Your task to perform on an android device: Open Google Maps Image 0: 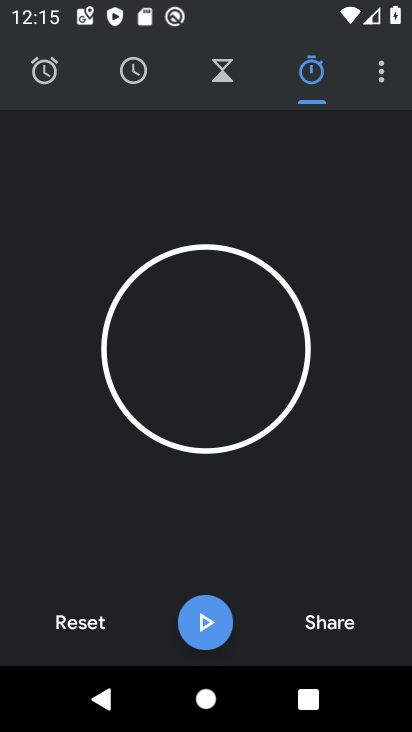
Step 0: press home button
Your task to perform on an android device: Open Google Maps Image 1: 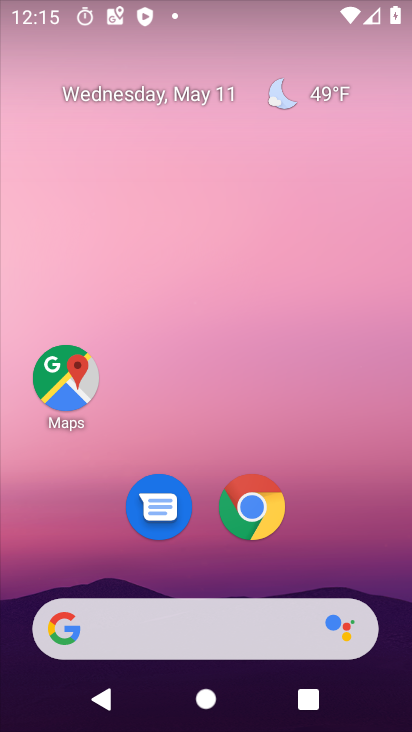
Step 1: drag from (205, 570) to (267, 101)
Your task to perform on an android device: Open Google Maps Image 2: 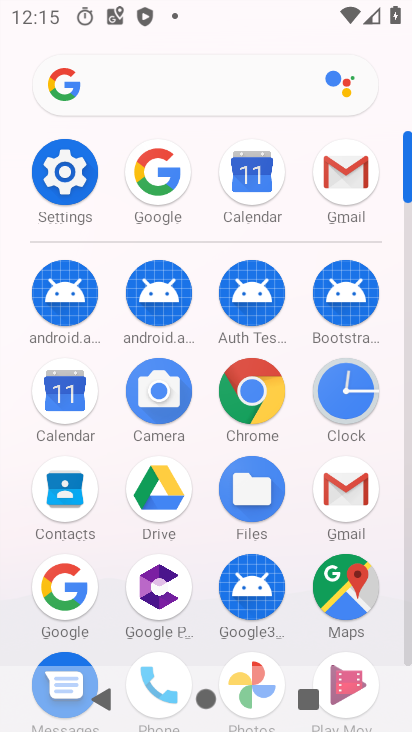
Step 2: click (346, 588)
Your task to perform on an android device: Open Google Maps Image 3: 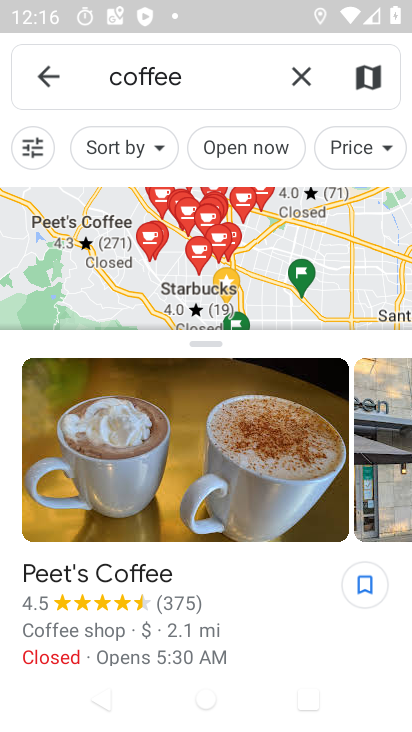
Step 3: task complete